Your task to perform on an android device: Open Youtube and go to "Your channel" Image 0: 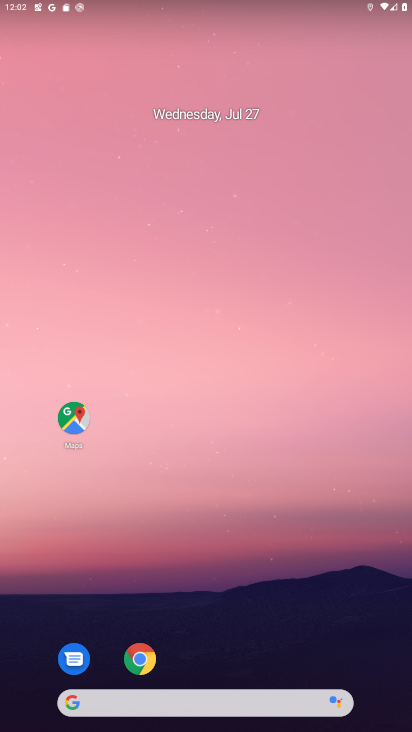
Step 0: drag from (287, 700) to (326, 11)
Your task to perform on an android device: Open Youtube and go to "Your channel" Image 1: 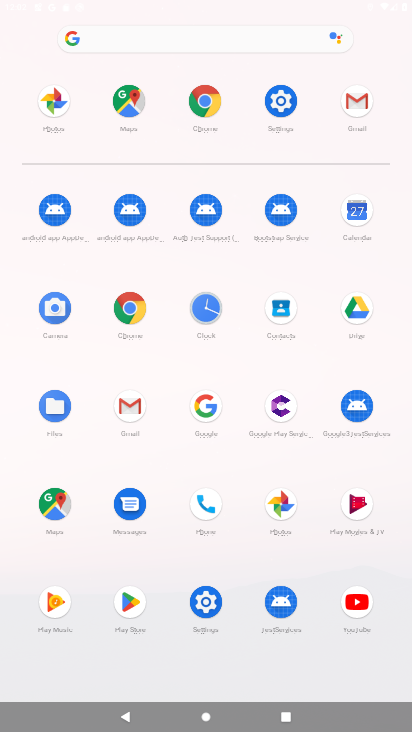
Step 1: click (354, 597)
Your task to perform on an android device: Open Youtube and go to "Your channel" Image 2: 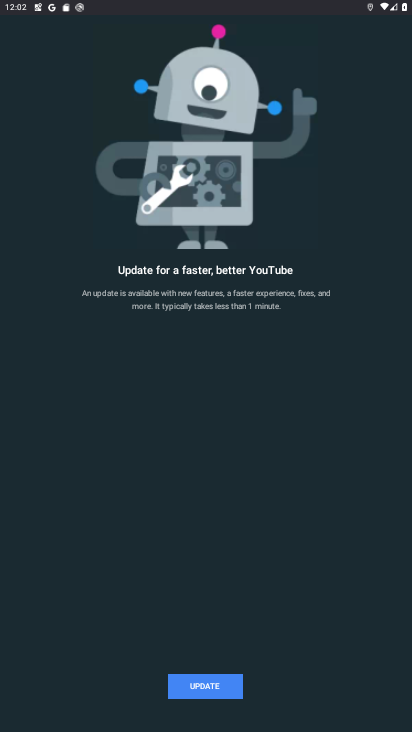
Step 2: click (201, 691)
Your task to perform on an android device: Open Youtube and go to "Your channel" Image 3: 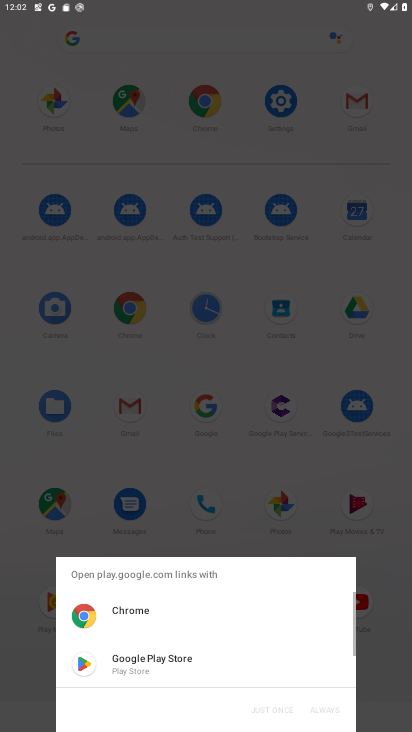
Step 3: click (141, 662)
Your task to perform on an android device: Open Youtube and go to "Your channel" Image 4: 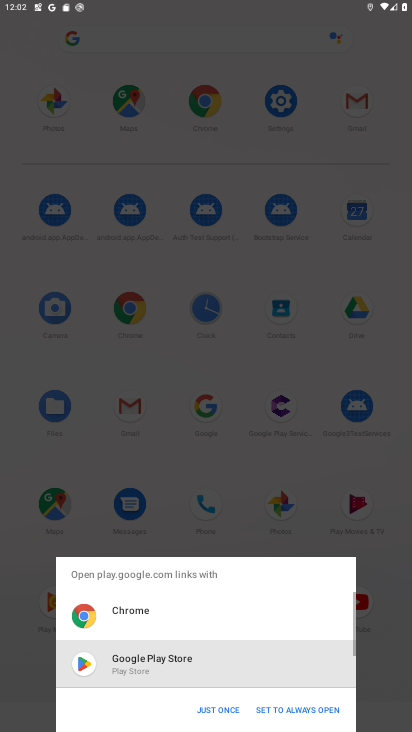
Step 4: click (218, 709)
Your task to perform on an android device: Open Youtube and go to "Your channel" Image 5: 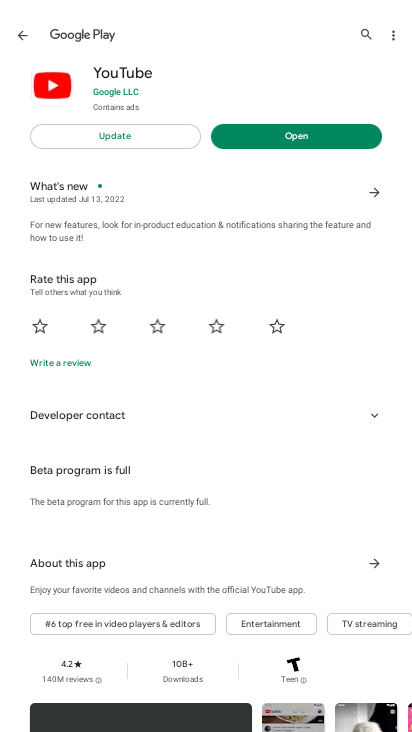
Step 5: click (128, 135)
Your task to perform on an android device: Open Youtube and go to "Your channel" Image 6: 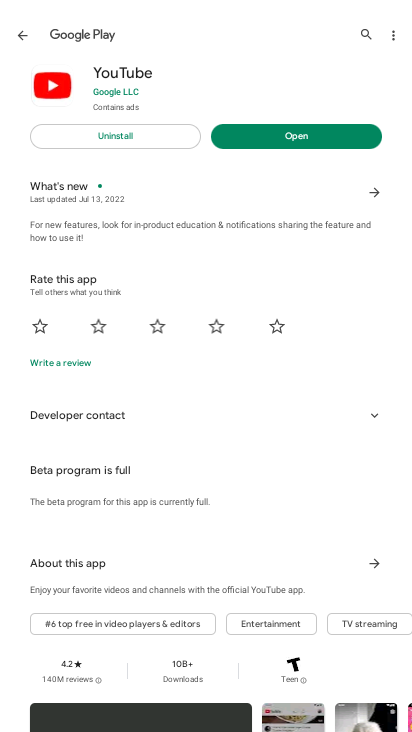
Step 6: click (314, 126)
Your task to perform on an android device: Open Youtube and go to "Your channel" Image 7: 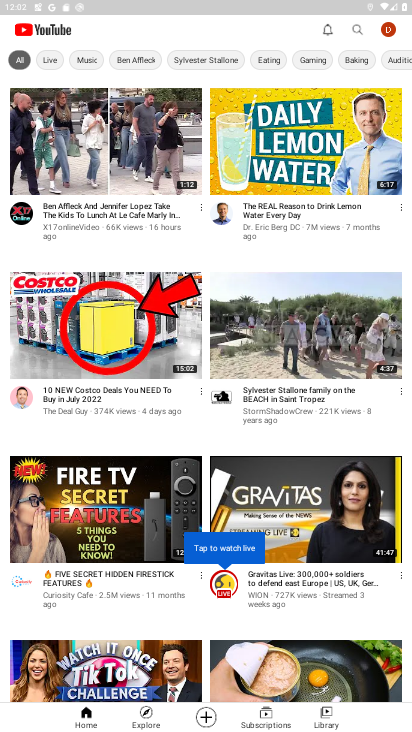
Step 7: click (390, 25)
Your task to perform on an android device: Open Youtube and go to "Your channel" Image 8: 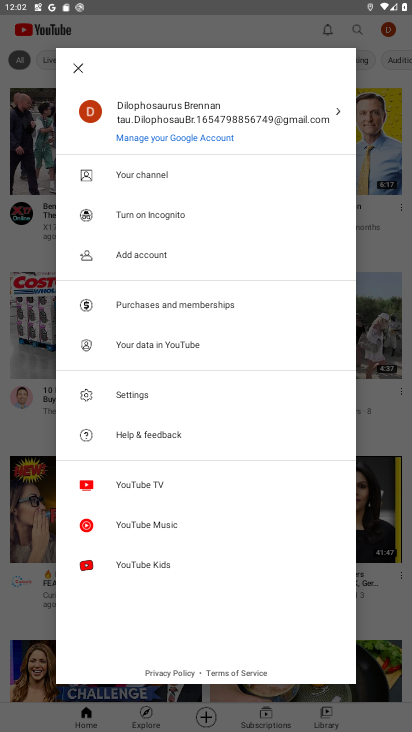
Step 8: click (136, 174)
Your task to perform on an android device: Open Youtube and go to "Your channel" Image 9: 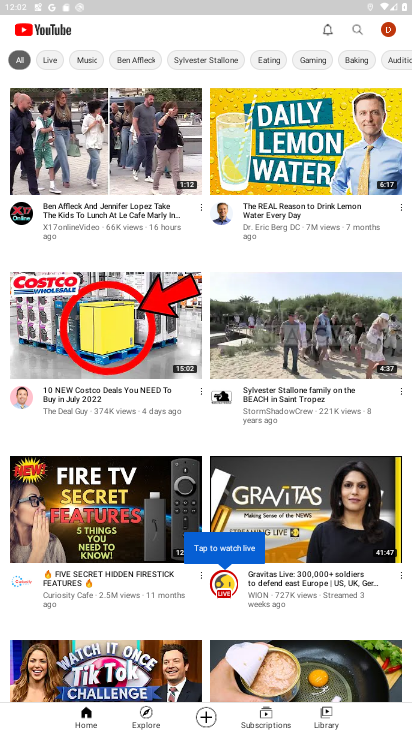
Step 9: task complete